Your task to perform on an android device: see tabs open on other devices in the chrome app Image 0: 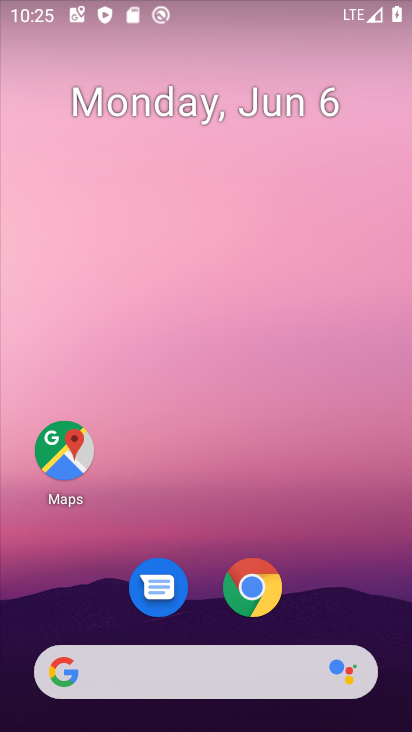
Step 0: click (264, 599)
Your task to perform on an android device: see tabs open on other devices in the chrome app Image 1: 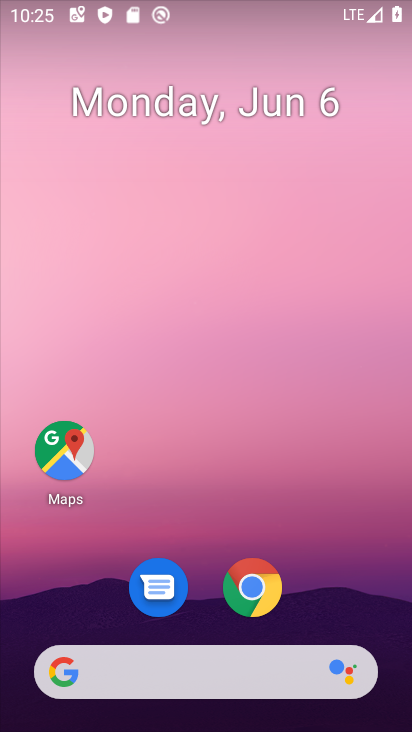
Step 1: click (264, 599)
Your task to perform on an android device: see tabs open on other devices in the chrome app Image 2: 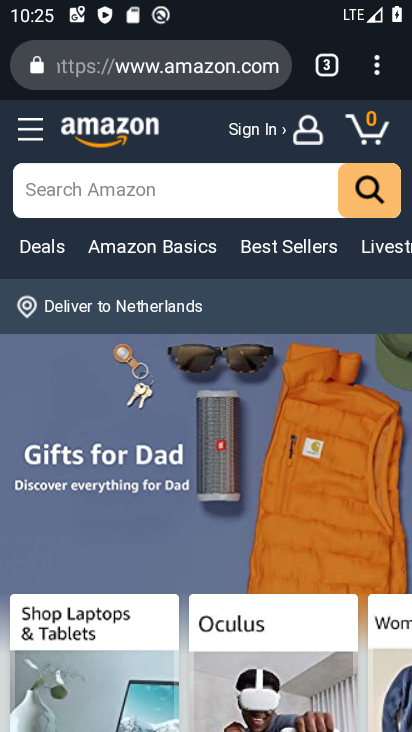
Step 2: click (368, 57)
Your task to perform on an android device: see tabs open on other devices in the chrome app Image 3: 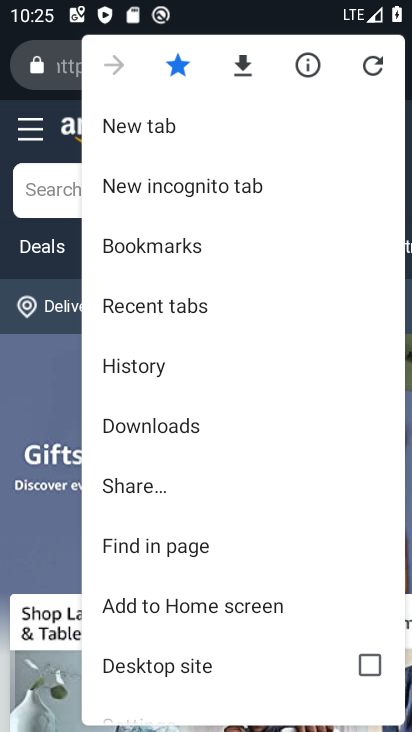
Step 3: click (188, 301)
Your task to perform on an android device: see tabs open on other devices in the chrome app Image 4: 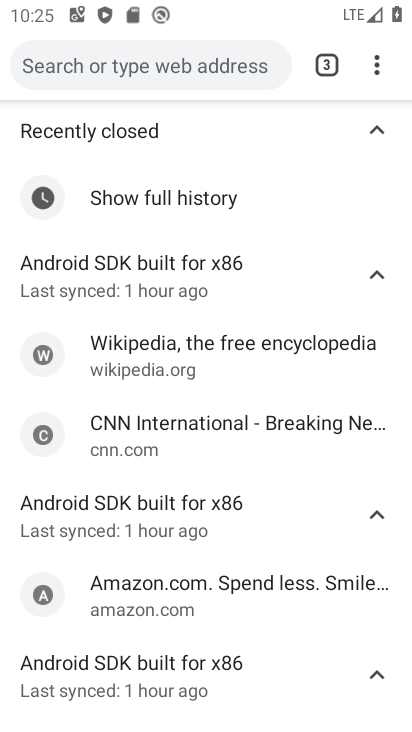
Step 4: task complete